Your task to perform on an android device: manage bookmarks in the chrome app Image 0: 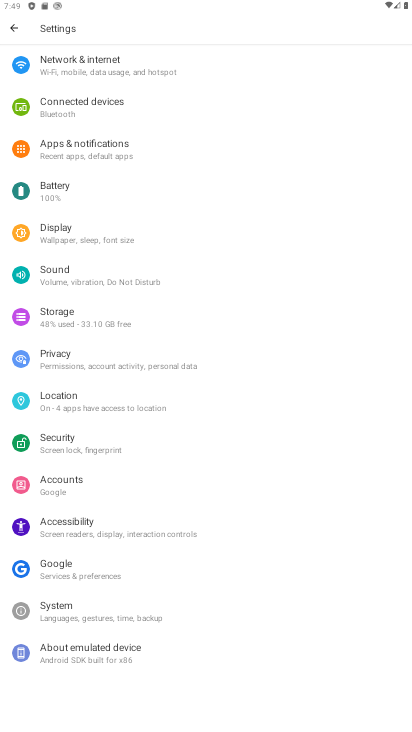
Step 0: press home button
Your task to perform on an android device: manage bookmarks in the chrome app Image 1: 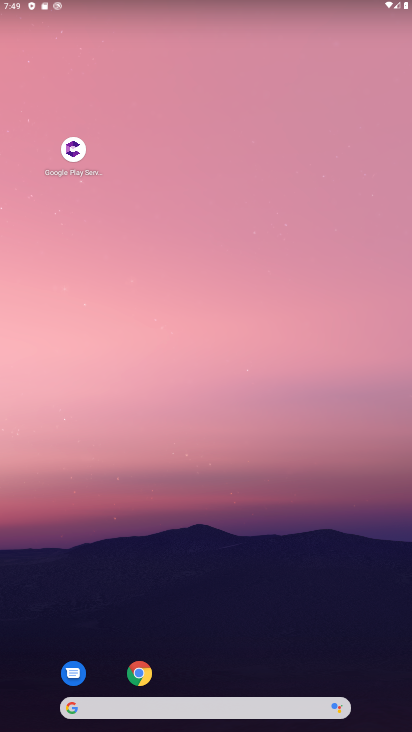
Step 1: drag from (235, 582) to (232, 288)
Your task to perform on an android device: manage bookmarks in the chrome app Image 2: 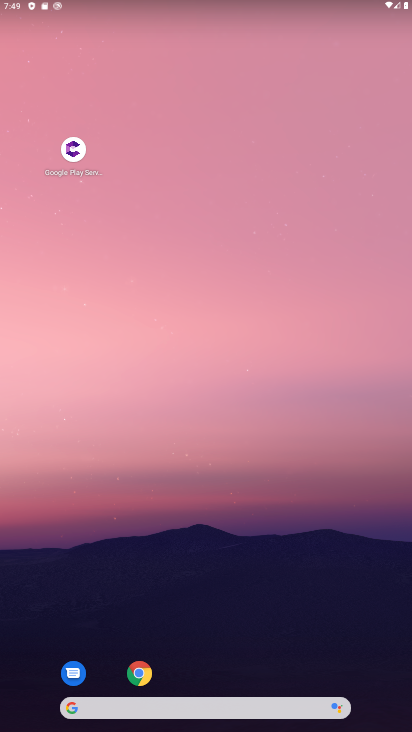
Step 2: click (147, 669)
Your task to perform on an android device: manage bookmarks in the chrome app Image 3: 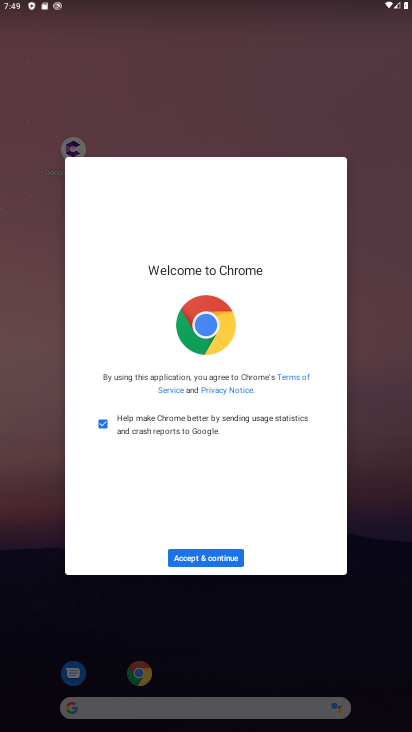
Step 3: click (226, 559)
Your task to perform on an android device: manage bookmarks in the chrome app Image 4: 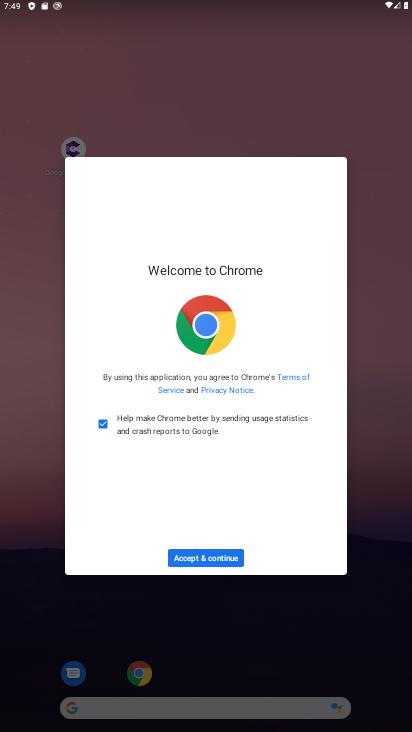
Step 4: click (226, 559)
Your task to perform on an android device: manage bookmarks in the chrome app Image 5: 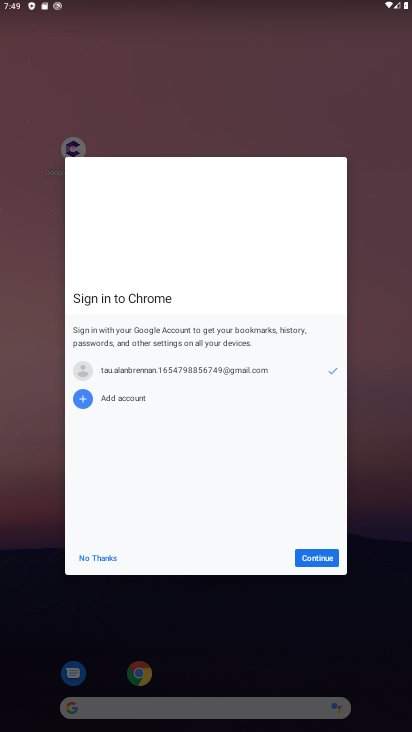
Step 5: click (309, 553)
Your task to perform on an android device: manage bookmarks in the chrome app Image 6: 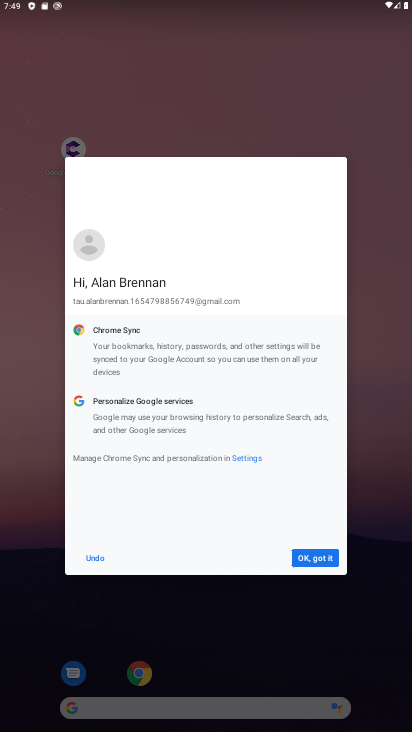
Step 6: click (325, 558)
Your task to perform on an android device: manage bookmarks in the chrome app Image 7: 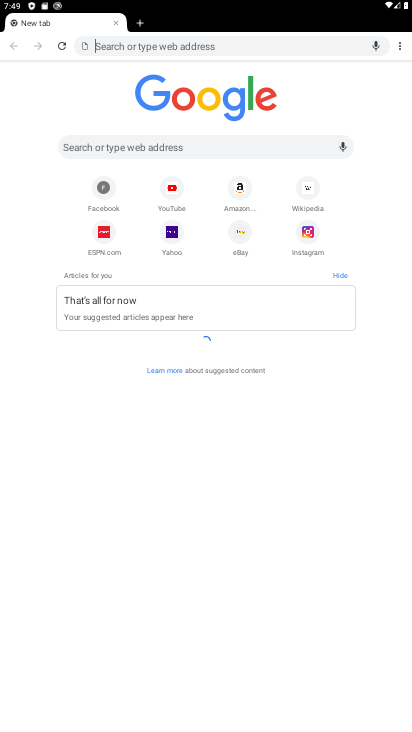
Step 7: click (397, 49)
Your task to perform on an android device: manage bookmarks in the chrome app Image 8: 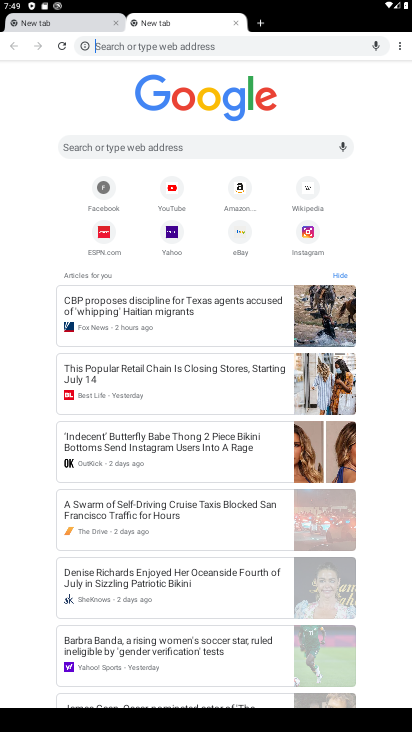
Step 8: drag from (397, 49) to (350, 94)
Your task to perform on an android device: manage bookmarks in the chrome app Image 9: 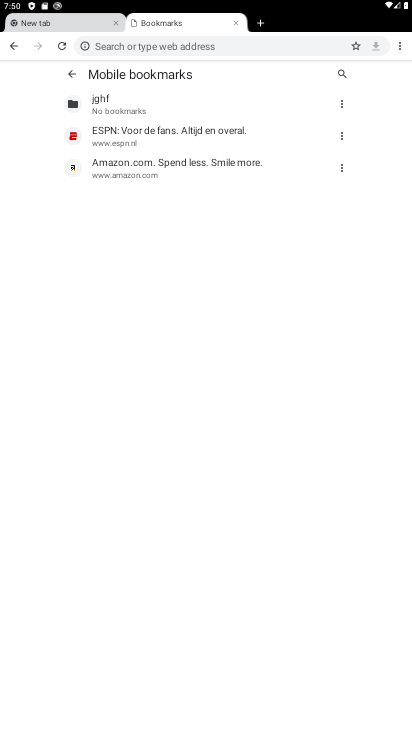
Step 9: click (341, 173)
Your task to perform on an android device: manage bookmarks in the chrome app Image 10: 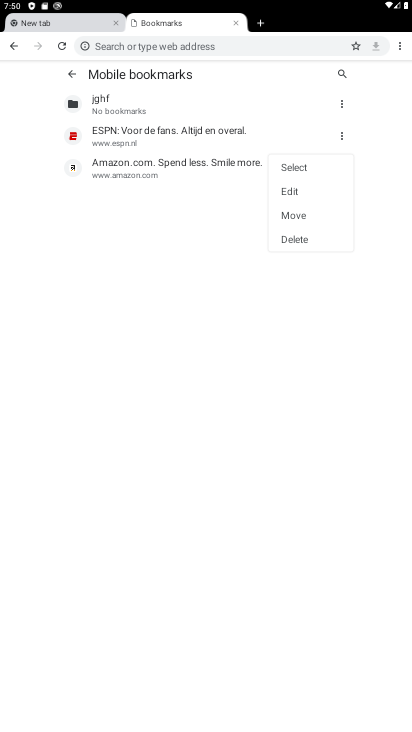
Step 10: click (287, 197)
Your task to perform on an android device: manage bookmarks in the chrome app Image 11: 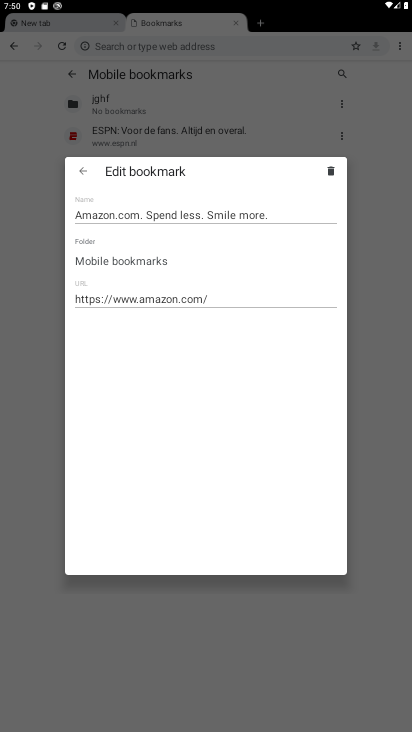
Step 11: click (281, 607)
Your task to perform on an android device: manage bookmarks in the chrome app Image 12: 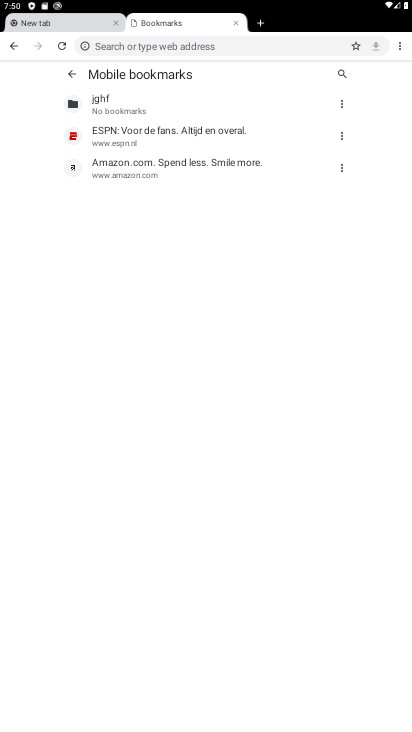
Step 12: task complete